Your task to perform on an android device: turn on sleep mode Image 0: 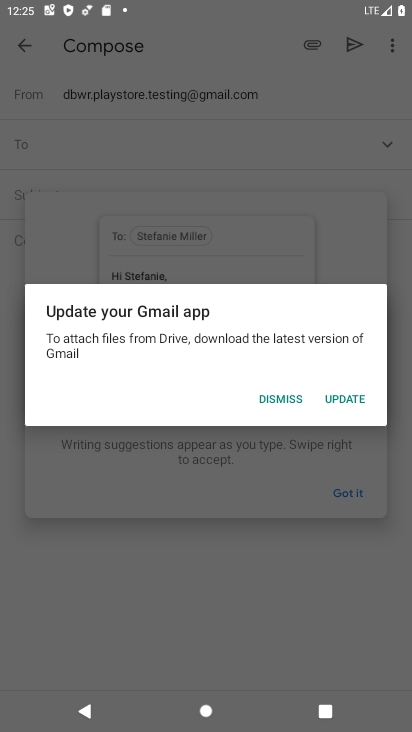
Step 0: press back button
Your task to perform on an android device: turn on sleep mode Image 1: 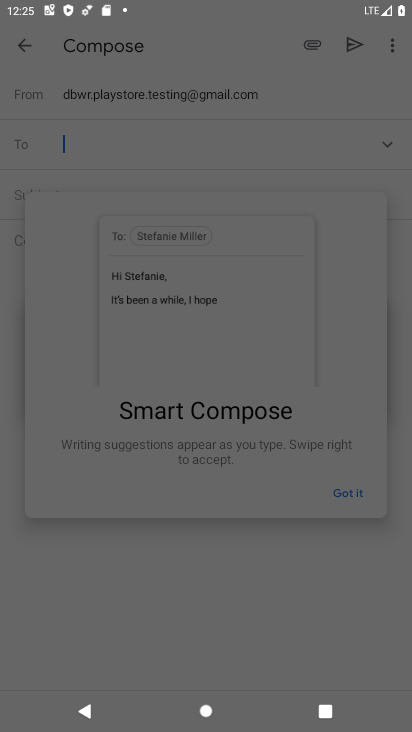
Step 1: press home button
Your task to perform on an android device: turn on sleep mode Image 2: 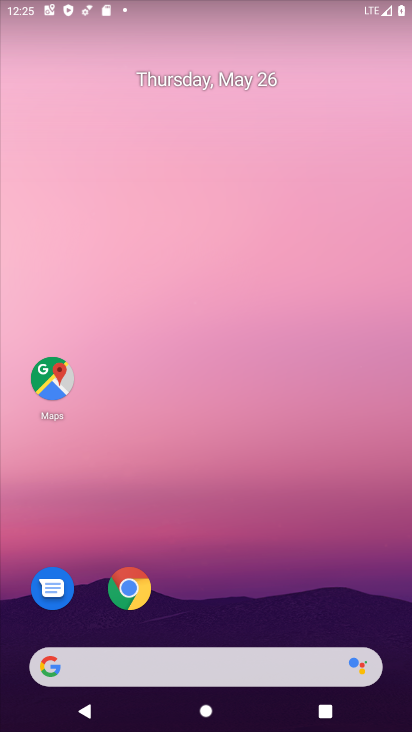
Step 2: drag from (280, 572) to (208, 0)
Your task to perform on an android device: turn on sleep mode Image 3: 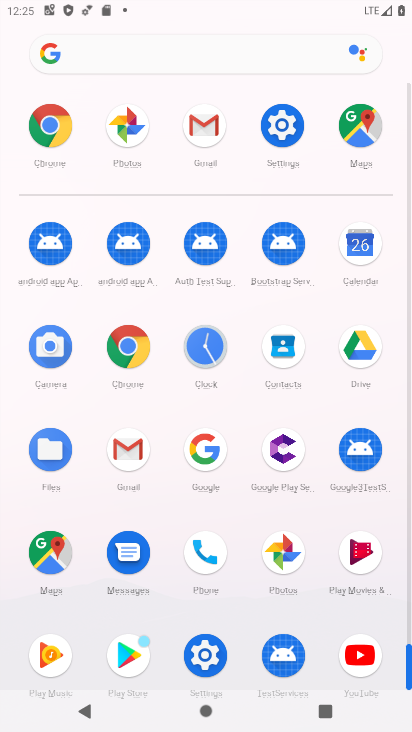
Step 3: drag from (12, 581) to (4, 217)
Your task to perform on an android device: turn on sleep mode Image 4: 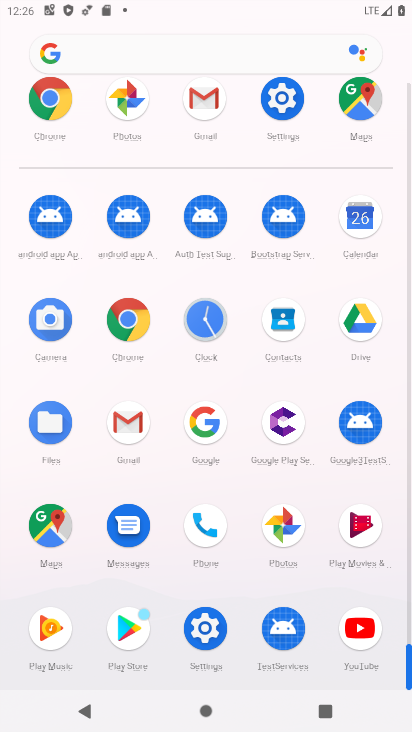
Step 4: click (201, 623)
Your task to perform on an android device: turn on sleep mode Image 5: 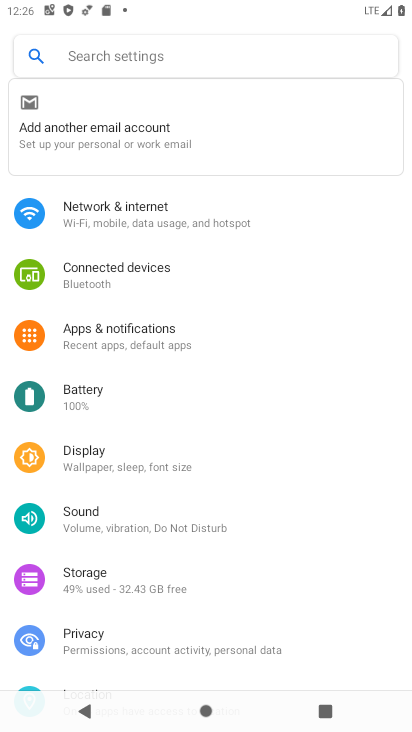
Step 5: click (168, 213)
Your task to perform on an android device: turn on sleep mode Image 6: 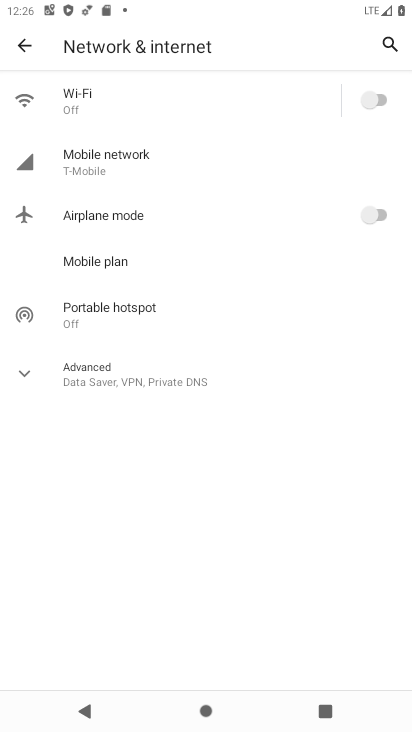
Step 6: click (28, 369)
Your task to perform on an android device: turn on sleep mode Image 7: 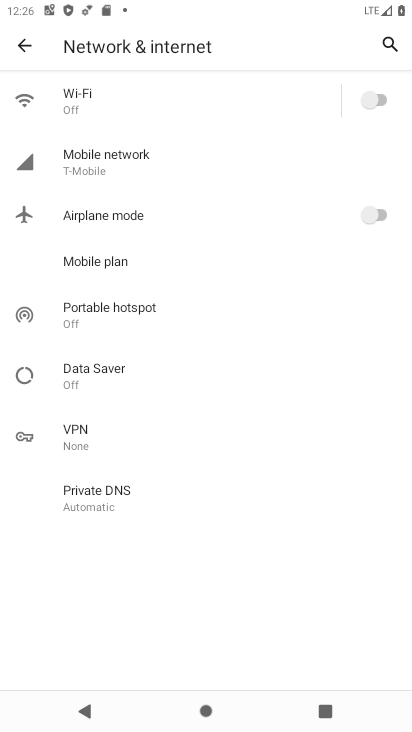
Step 7: click (29, 42)
Your task to perform on an android device: turn on sleep mode Image 8: 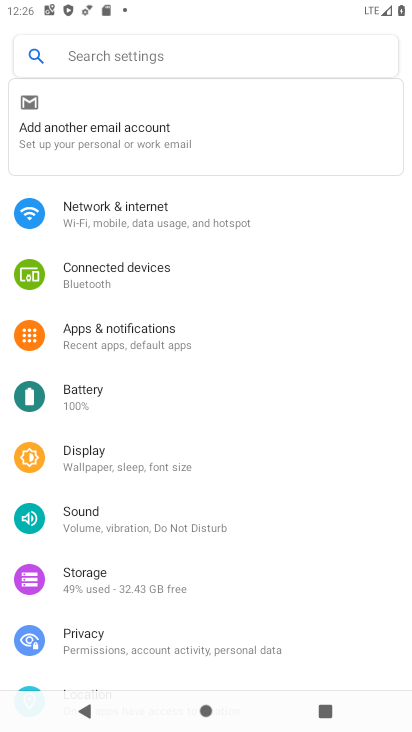
Step 8: drag from (283, 587) to (286, 469)
Your task to perform on an android device: turn on sleep mode Image 9: 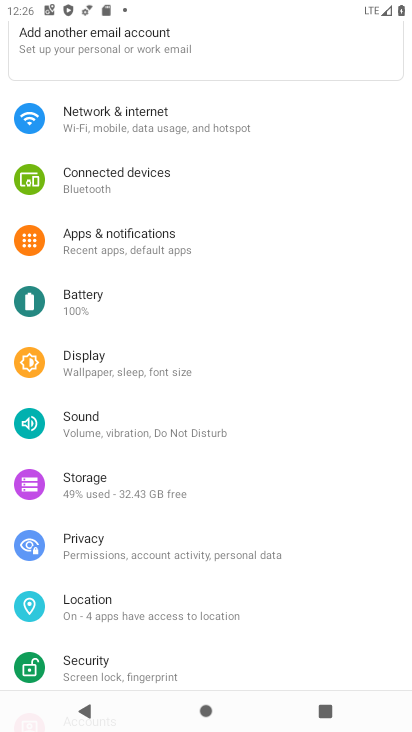
Step 9: click (193, 118)
Your task to perform on an android device: turn on sleep mode Image 10: 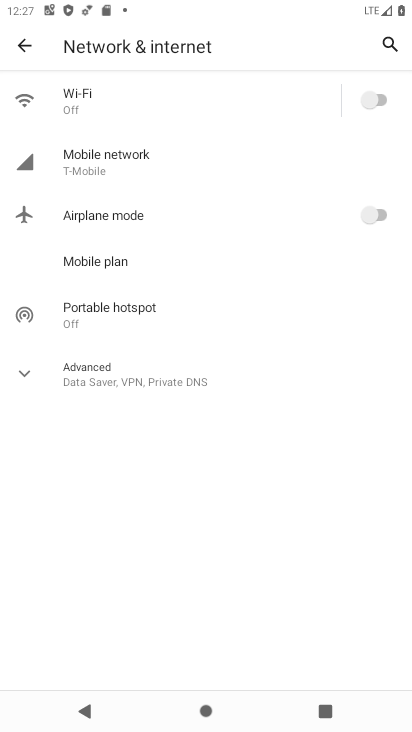
Step 10: click (13, 367)
Your task to perform on an android device: turn on sleep mode Image 11: 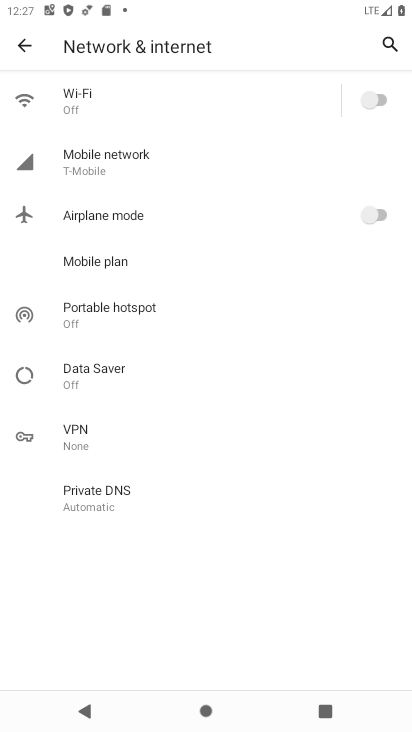
Step 11: click (14, 31)
Your task to perform on an android device: turn on sleep mode Image 12: 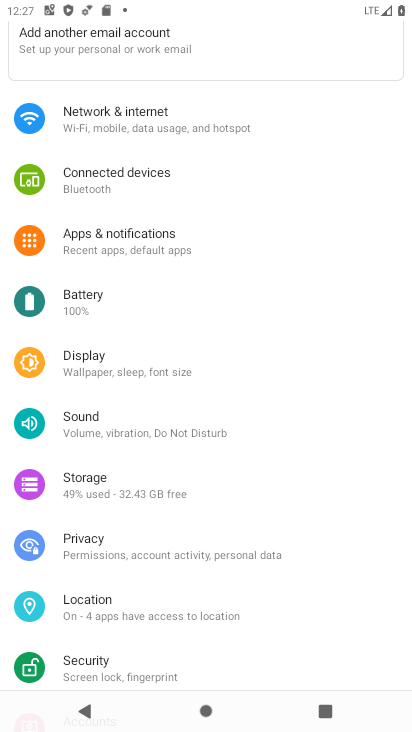
Step 12: click (136, 354)
Your task to perform on an android device: turn on sleep mode Image 13: 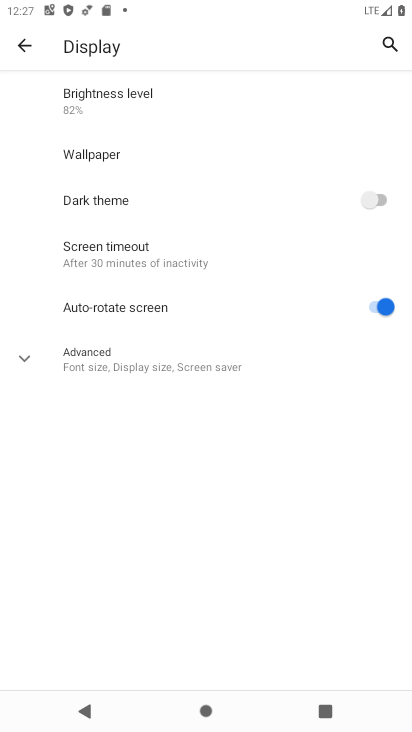
Step 13: click (79, 355)
Your task to perform on an android device: turn on sleep mode Image 14: 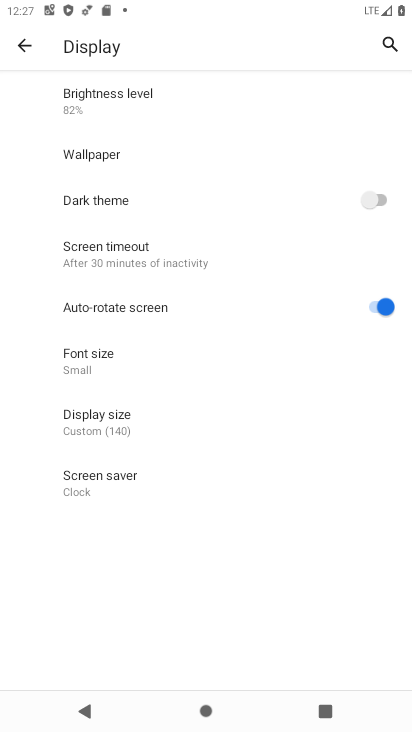
Step 14: task complete